Your task to perform on an android device: turn on wifi Image 0: 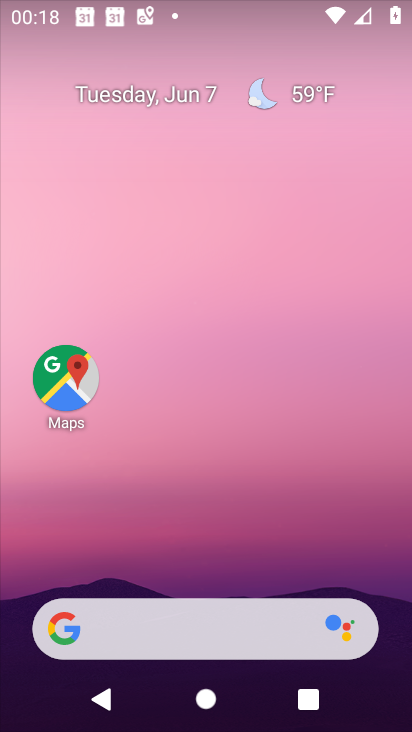
Step 0: drag from (204, 532) to (146, 113)
Your task to perform on an android device: turn on wifi Image 1: 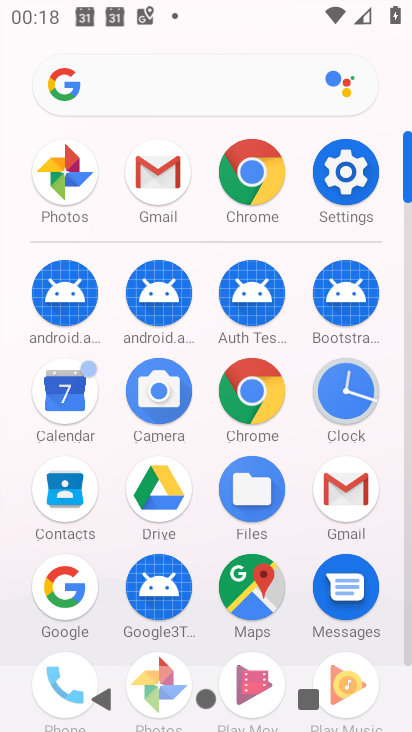
Step 1: click (341, 171)
Your task to perform on an android device: turn on wifi Image 2: 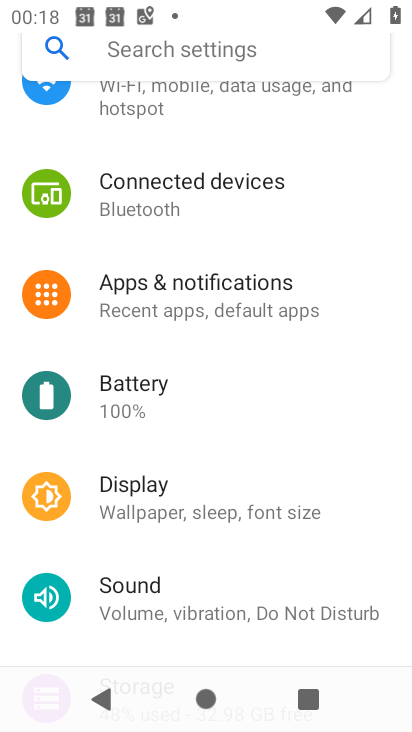
Step 2: click (126, 108)
Your task to perform on an android device: turn on wifi Image 3: 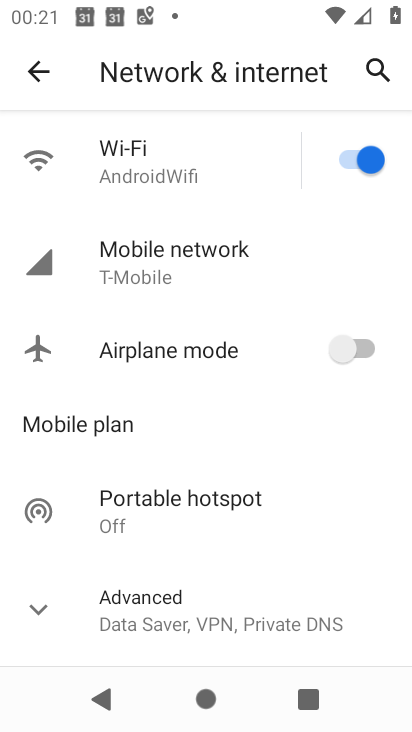
Step 3: task complete